Your task to perform on an android device: Open Google Maps Image 0: 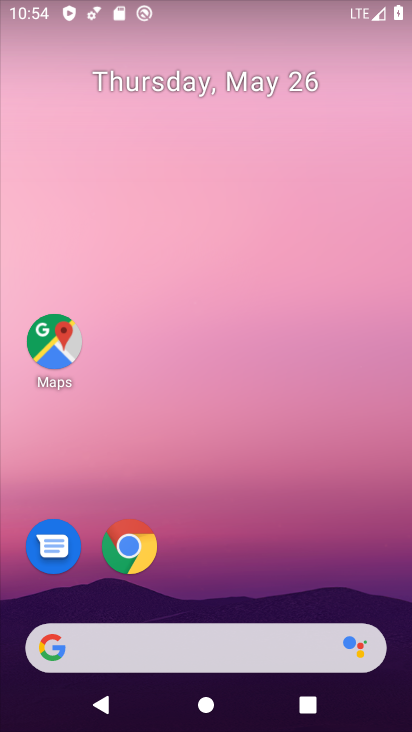
Step 0: click (60, 346)
Your task to perform on an android device: Open Google Maps Image 1: 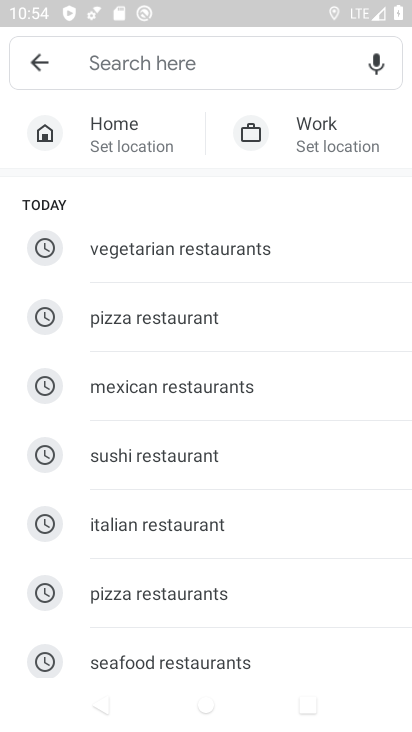
Step 1: task complete